Your task to perform on an android device: Open Google Chrome Image 0: 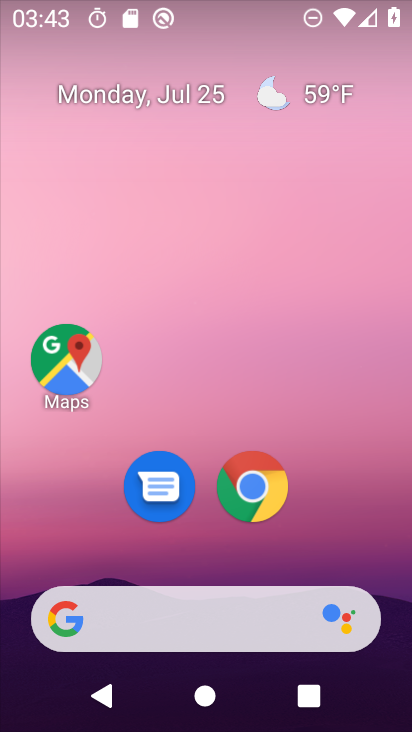
Step 0: click (259, 495)
Your task to perform on an android device: Open Google Chrome Image 1: 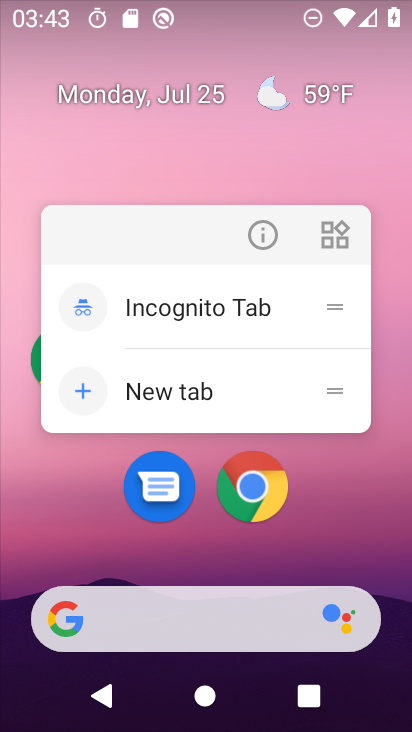
Step 1: click (260, 470)
Your task to perform on an android device: Open Google Chrome Image 2: 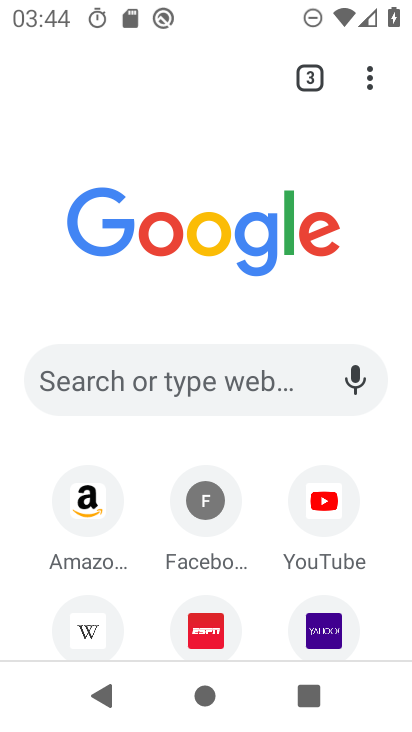
Step 2: task complete